Your task to perform on an android device: find snoozed emails in the gmail app Image 0: 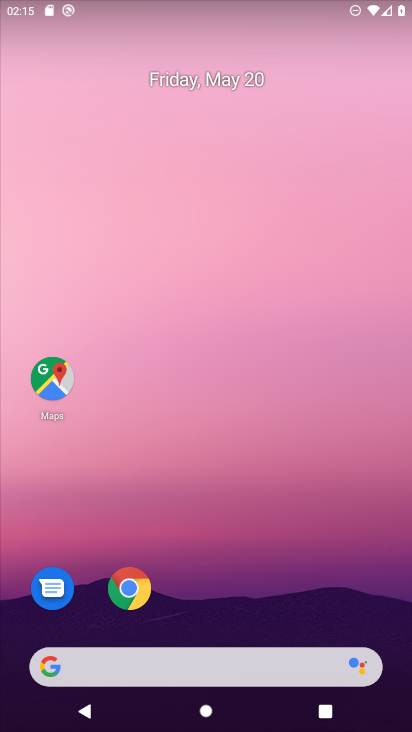
Step 0: drag from (393, 644) to (267, 94)
Your task to perform on an android device: find snoozed emails in the gmail app Image 1: 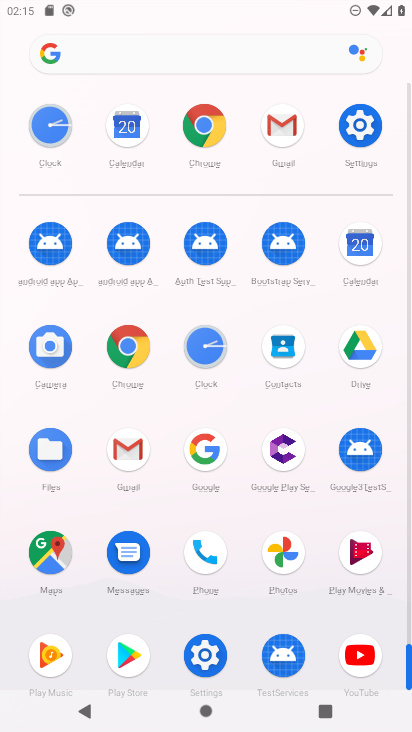
Step 1: click (126, 449)
Your task to perform on an android device: find snoozed emails in the gmail app Image 2: 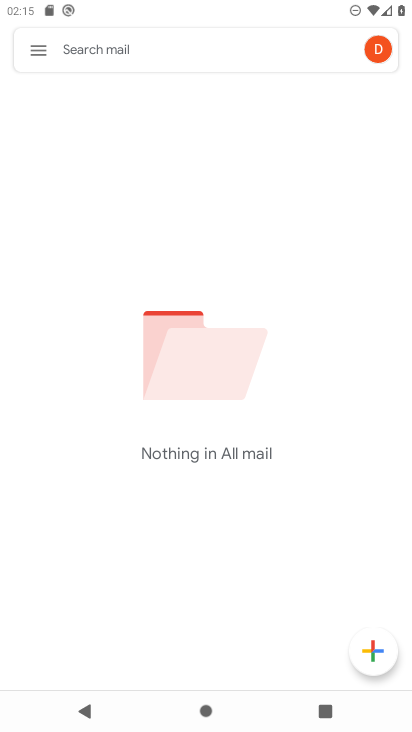
Step 2: click (39, 48)
Your task to perform on an android device: find snoozed emails in the gmail app Image 3: 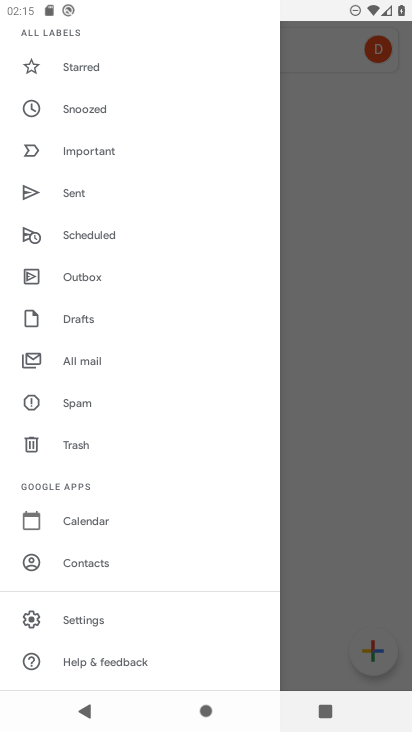
Step 3: click (76, 105)
Your task to perform on an android device: find snoozed emails in the gmail app Image 4: 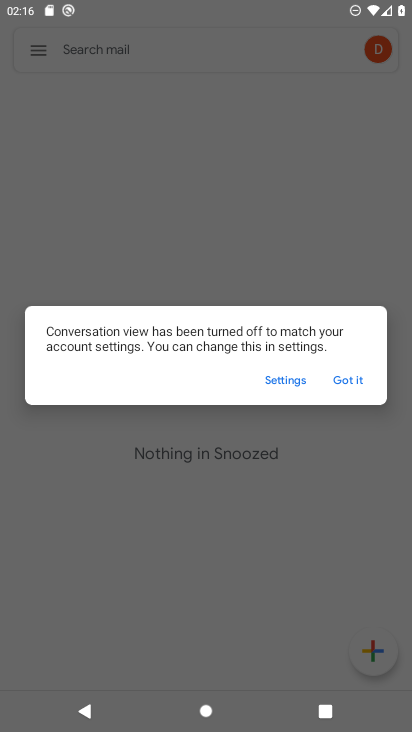
Step 4: click (354, 383)
Your task to perform on an android device: find snoozed emails in the gmail app Image 5: 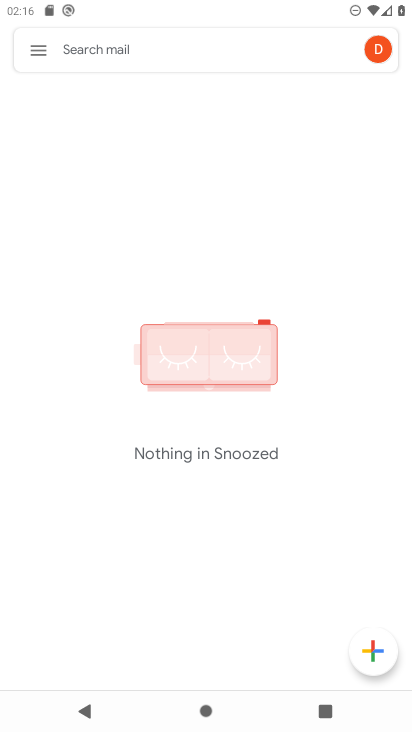
Step 5: task complete